Your task to perform on an android device: Go to Wikipedia Image 0: 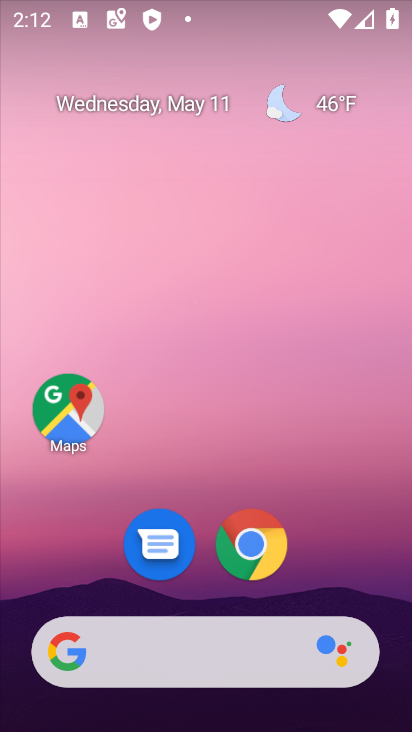
Step 0: click (258, 543)
Your task to perform on an android device: Go to Wikipedia Image 1: 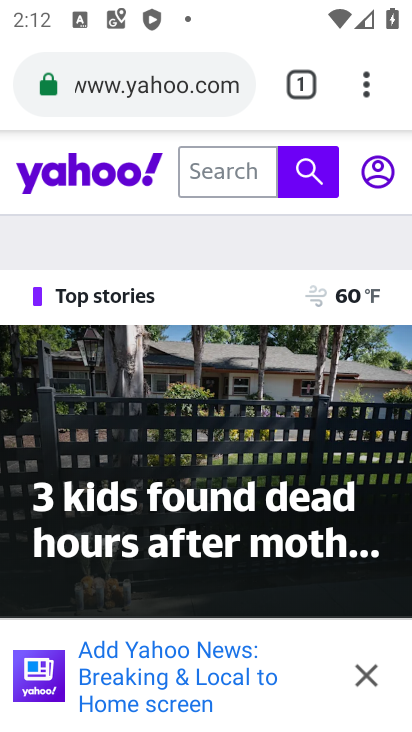
Step 1: click (122, 82)
Your task to perform on an android device: Go to Wikipedia Image 2: 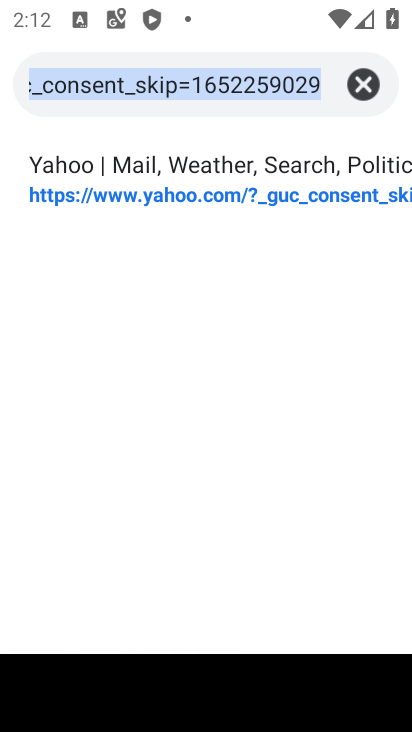
Step 2: click (365, 82)
Your task to perform on an android device: Go to Wikipedia Image 3: 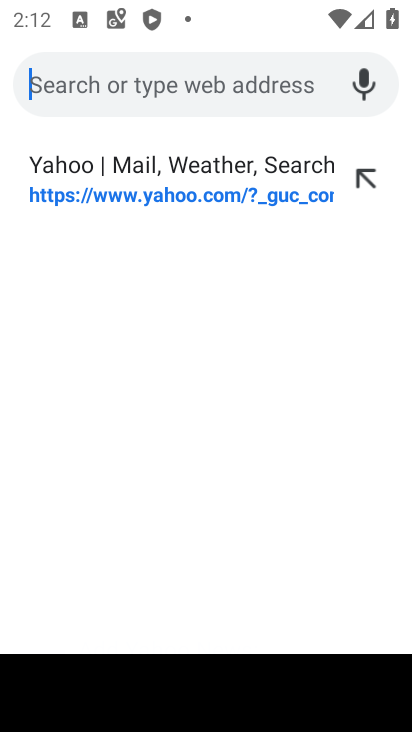
Step 3: type "wikipedia.com"
Your task to perform on an android device: Go to Wikipedia Image 4: 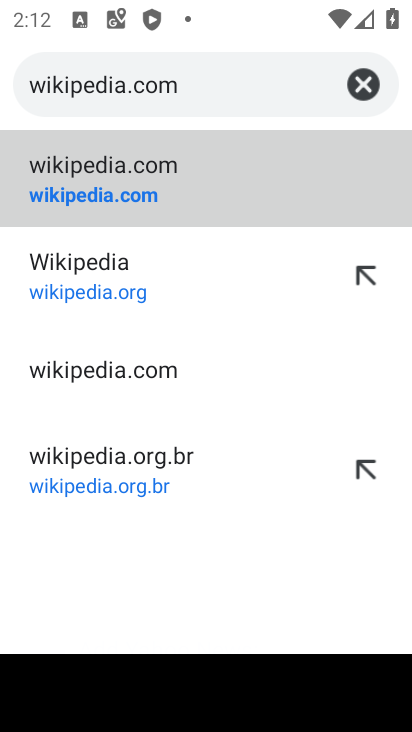
Step 4: click (84, 175)
Your task to perform on an android device: Go to Wikipedia Image 5: 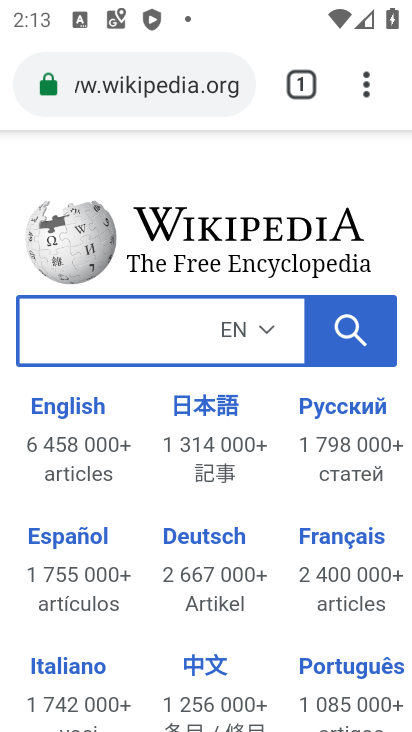
Step 5: task complete